Your task to perform on an android device: Show the shopping cart on ebay. Search for panasonic triple a on ebay, select the first entry, add it to the cart, then select checkout. Image 0: 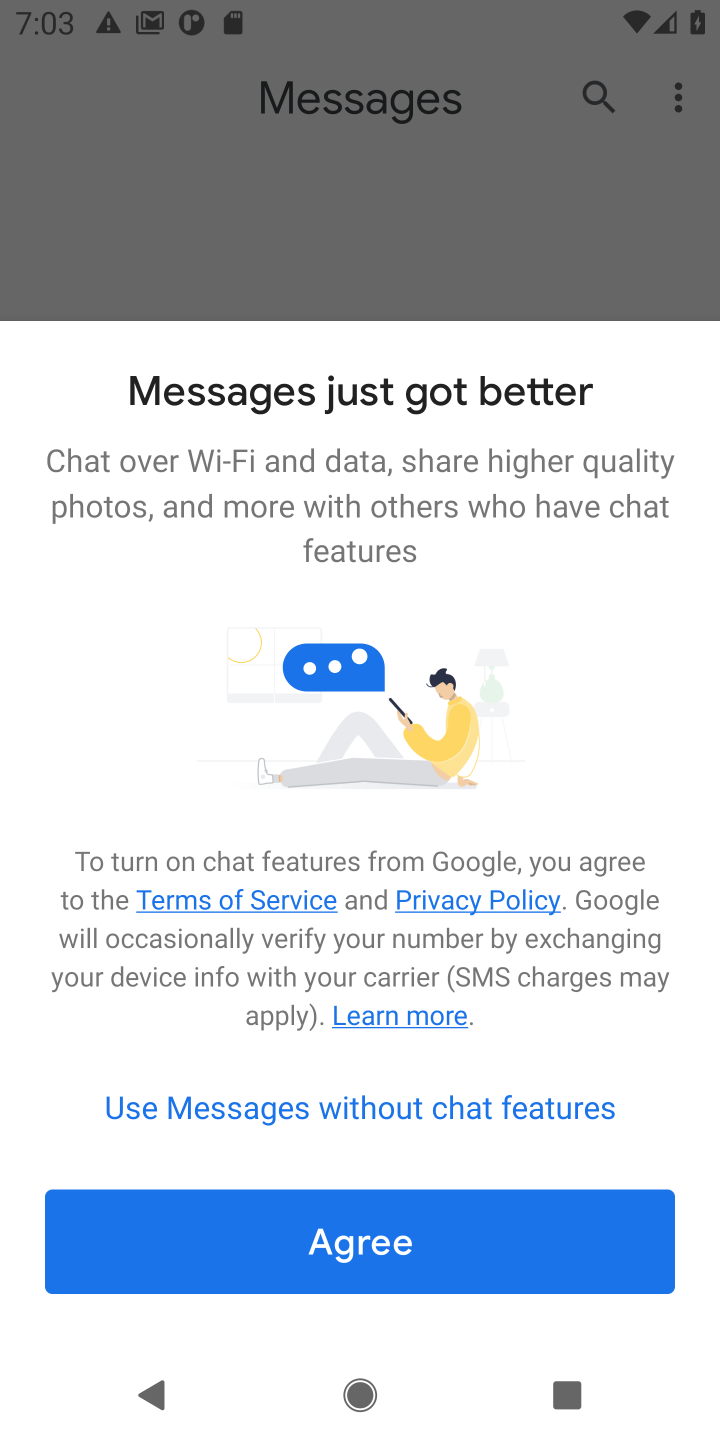
Step 0: press home button
Your task to perform on an android device: Show the shopping cart on ebay. Search for panasonic triple a on ebay, select the first entry, add it to the cart, then select checkout. Image 1: 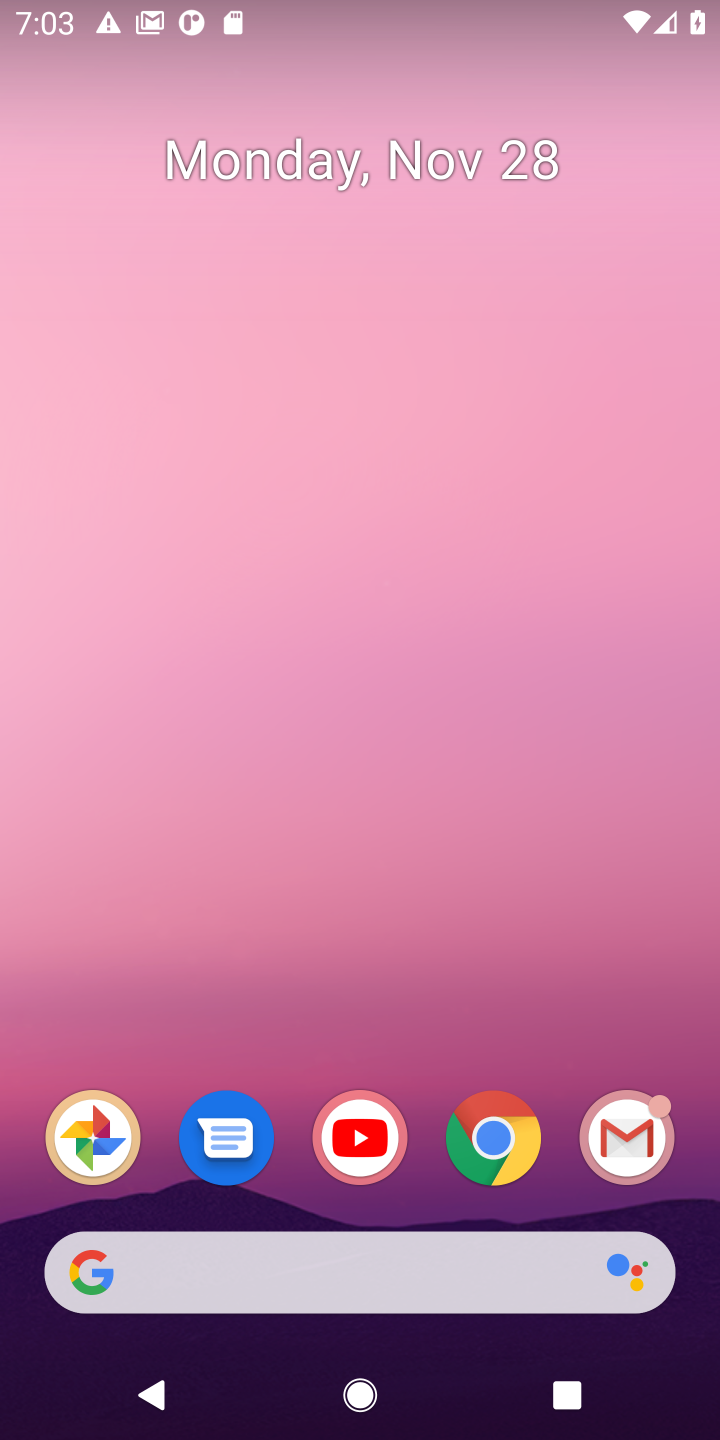
Step 1: click (503, 1154)
Your task to perform on an android device: Show the shopping cart on ebay. Search for panasonic triple a on ebay, select the first entry, add it to the cart, then select checkout. Image 2: 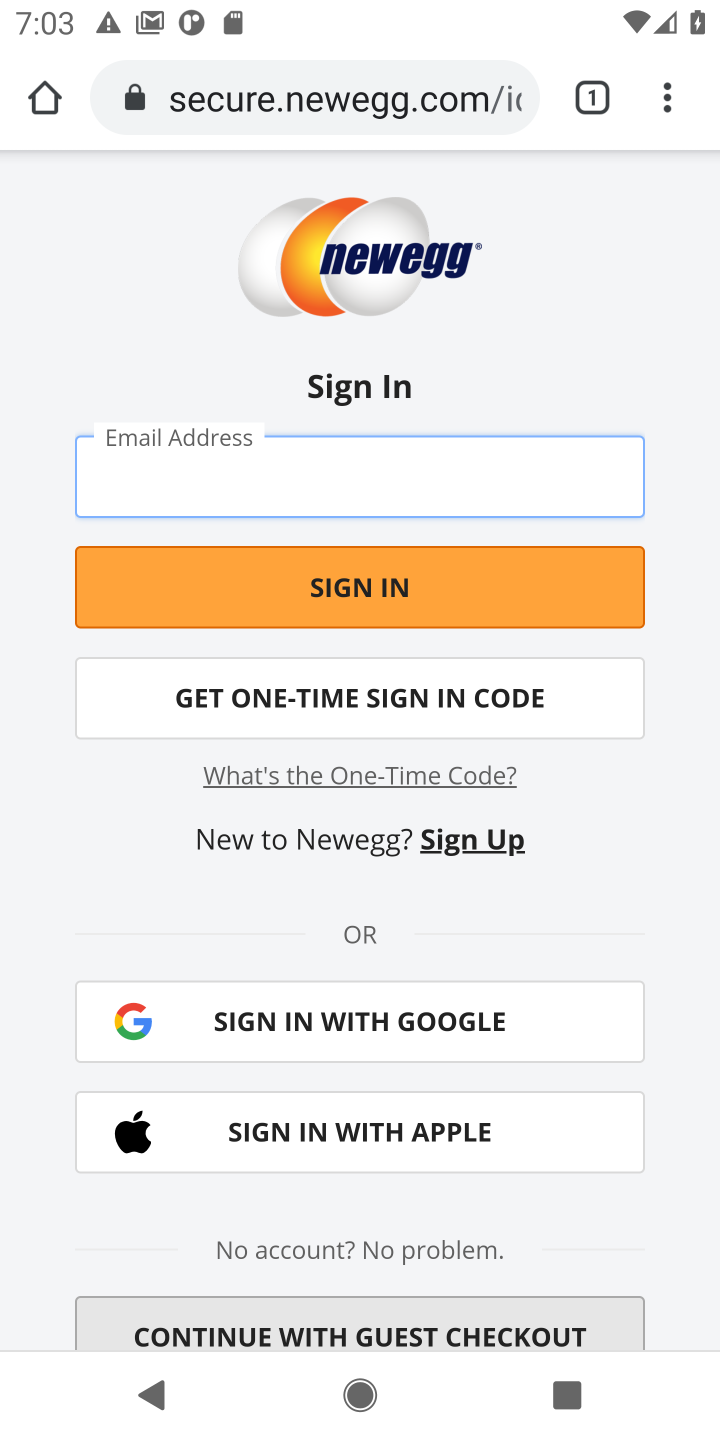
Step 2: click (305, 92)
Your task to perform on an android device: Show the shopping cart on ebay. Search for panasonic triple a on ebay, select the first entry, add it to the cart, then select checkout. Image 3: 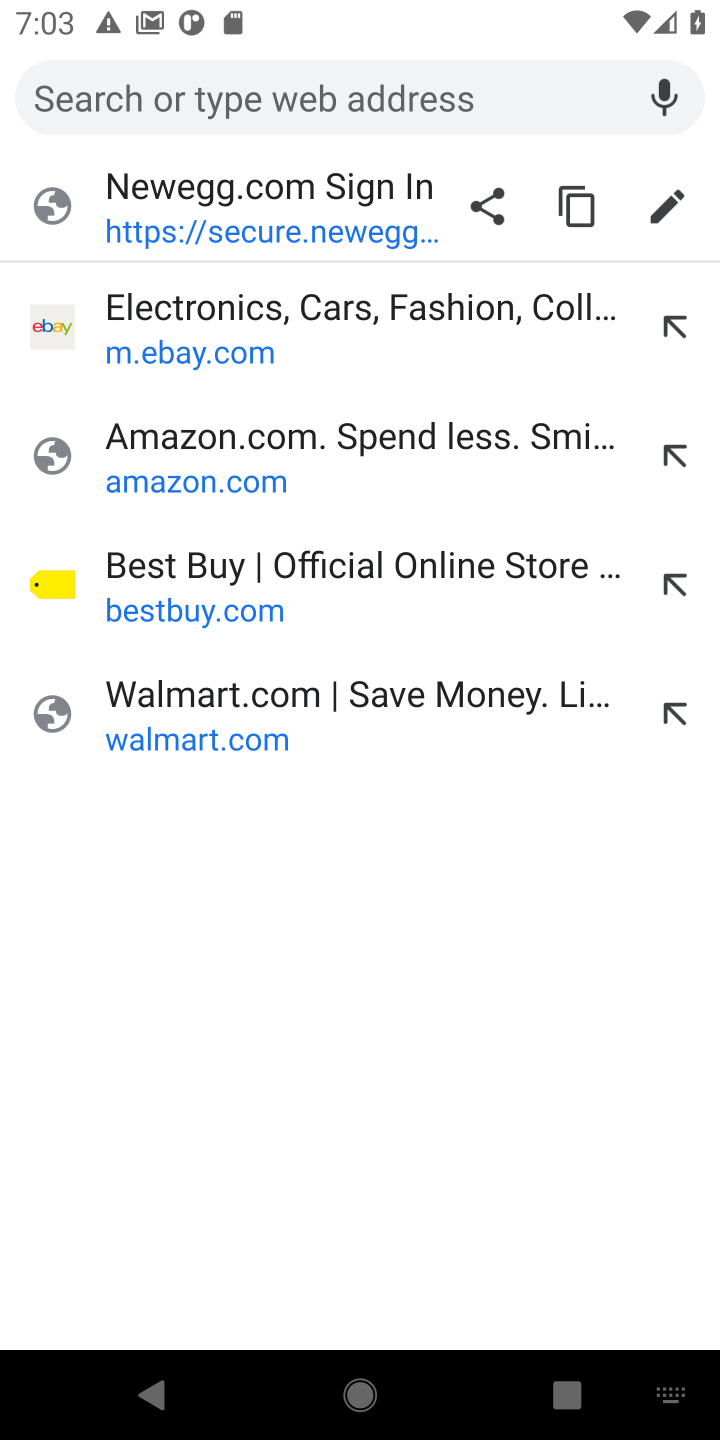
Step 3: click (171, 321)
Your task to perform on an android device: Show the shopping cart on ebay. Search for panasonic triple a on ebay, select the first entry, add it to the cart, then select checkout. Image 4: 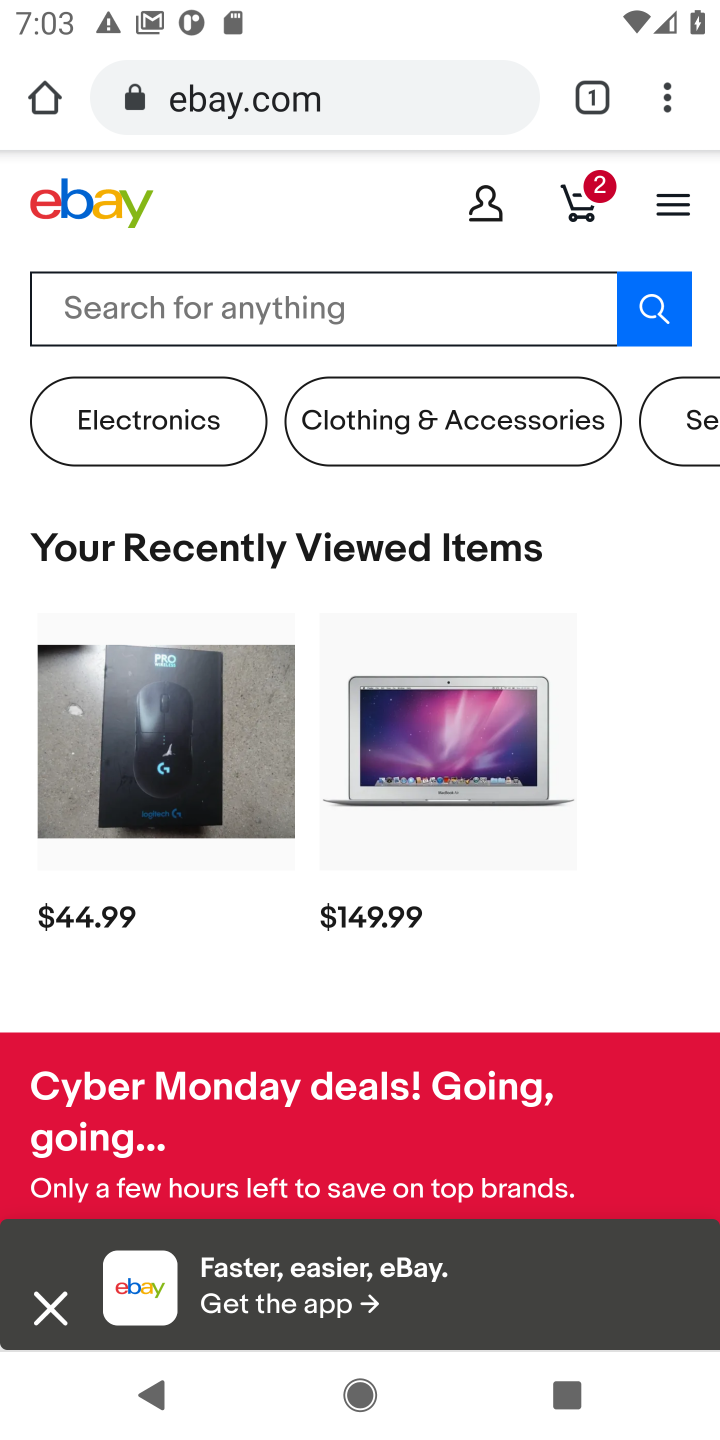
Step 4: click (581, 208)
Your task to perform on an android device: Show the shopping cart on ebay. Search for panasonic triple a on ebay, select the first entry, add it to the cart, then select checkout. Image 5: 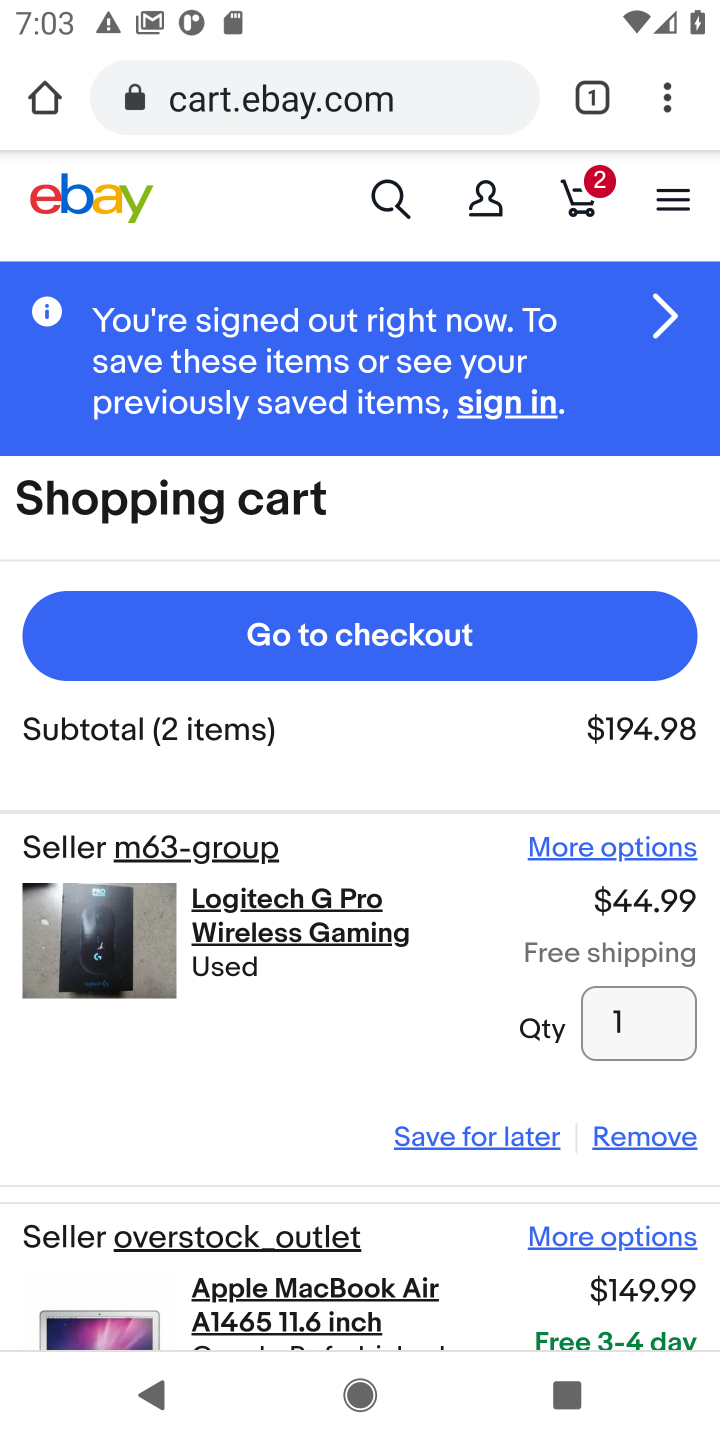
Step 5: click (386, 206)
Your task to perform on an android device: Show the shopping cart on ebay. Search for panasonic triple a on ebay, select the first entry, add it to the cart, then select checkout. Image 6: 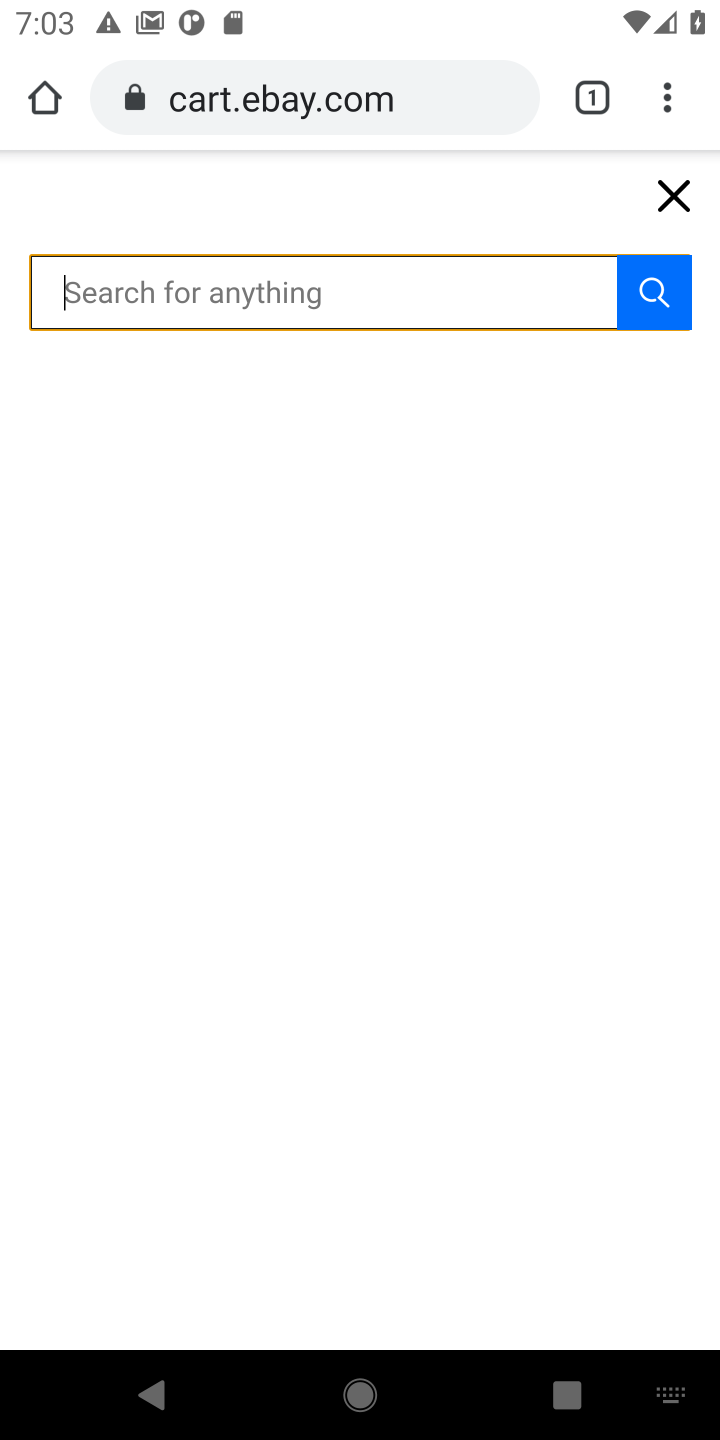
Step 6: type "panasonic triple a"
Your task to perform on an android device: Show the shopping cart on ebay. Search for panasonic triple a on ebay, select the first entry, add it to the cart, then select checkout. Image 7: 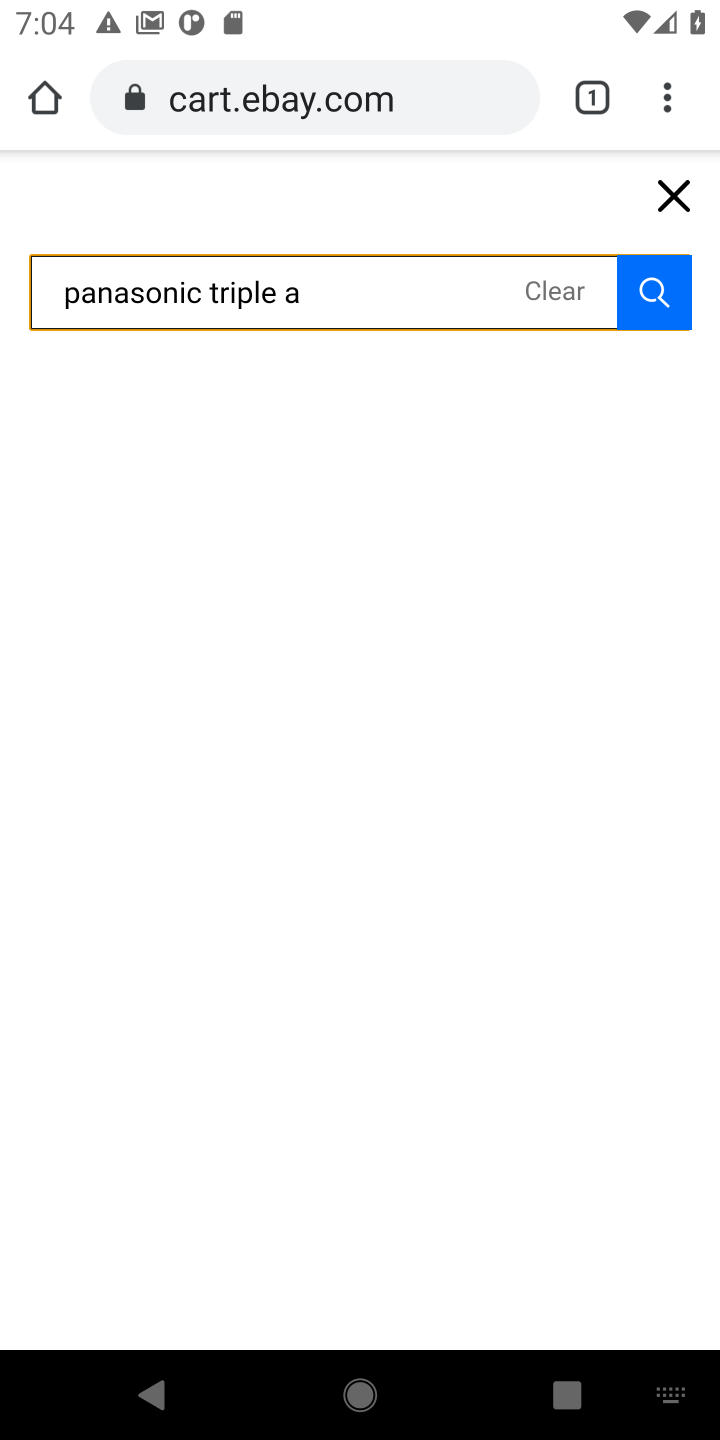
Step 7: click (659, 303)
Your task to perform on an android device: Show the shopping cart on ebay. Search for panasonic triple a on ebay, select the first entry, add it to the cart, then select checkout. Image 8: 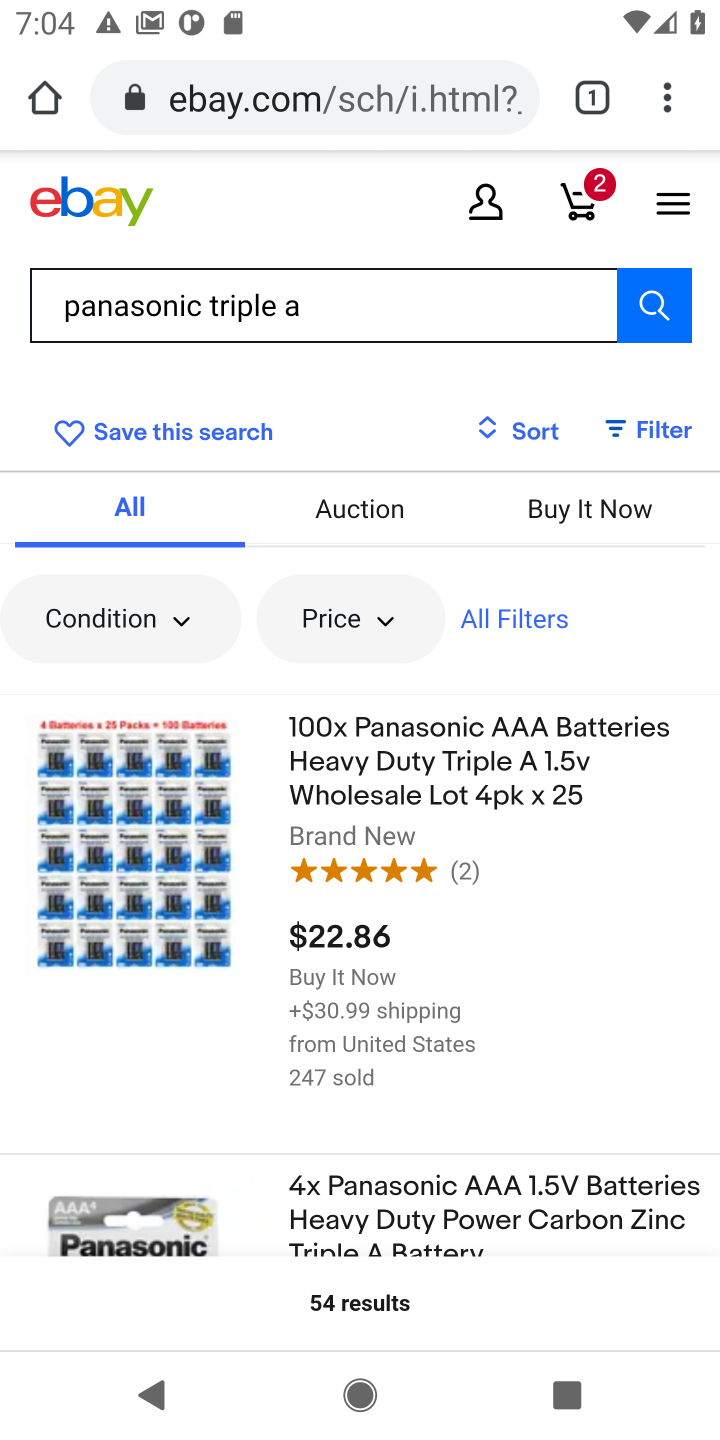
Step 8: click (333, 789)
Your task to perform on an android device: Show the shopping cart on ebay. Search for panasonic triple a on ebay, select the first entry, add it to the cart, then select checkout. Image 9: 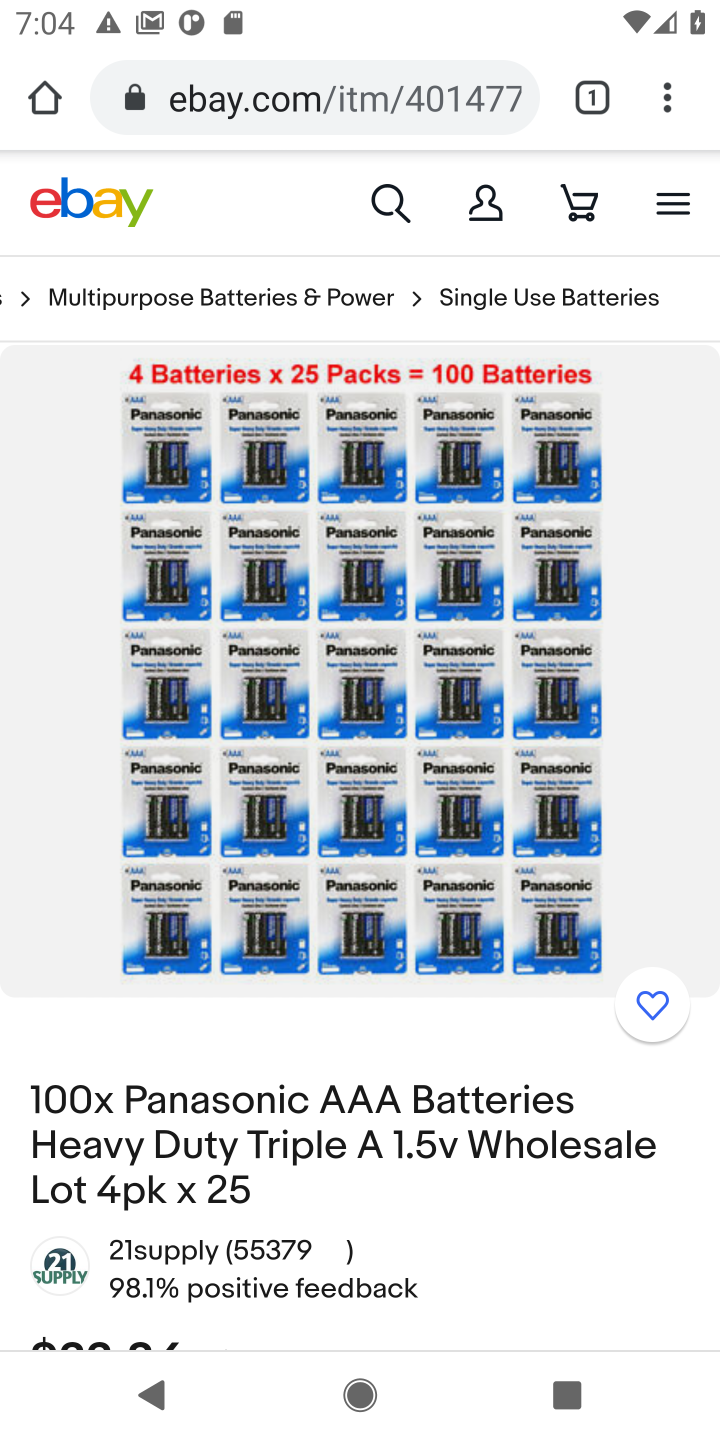
Step 9: drag from (542, 1117) to (513, 624)
Your task to perform on an android device: Show the shopping cart on ebay. Search for panasonic triple a on ebay, select the first entry, add it to the cart, then select checkout. Image 10: 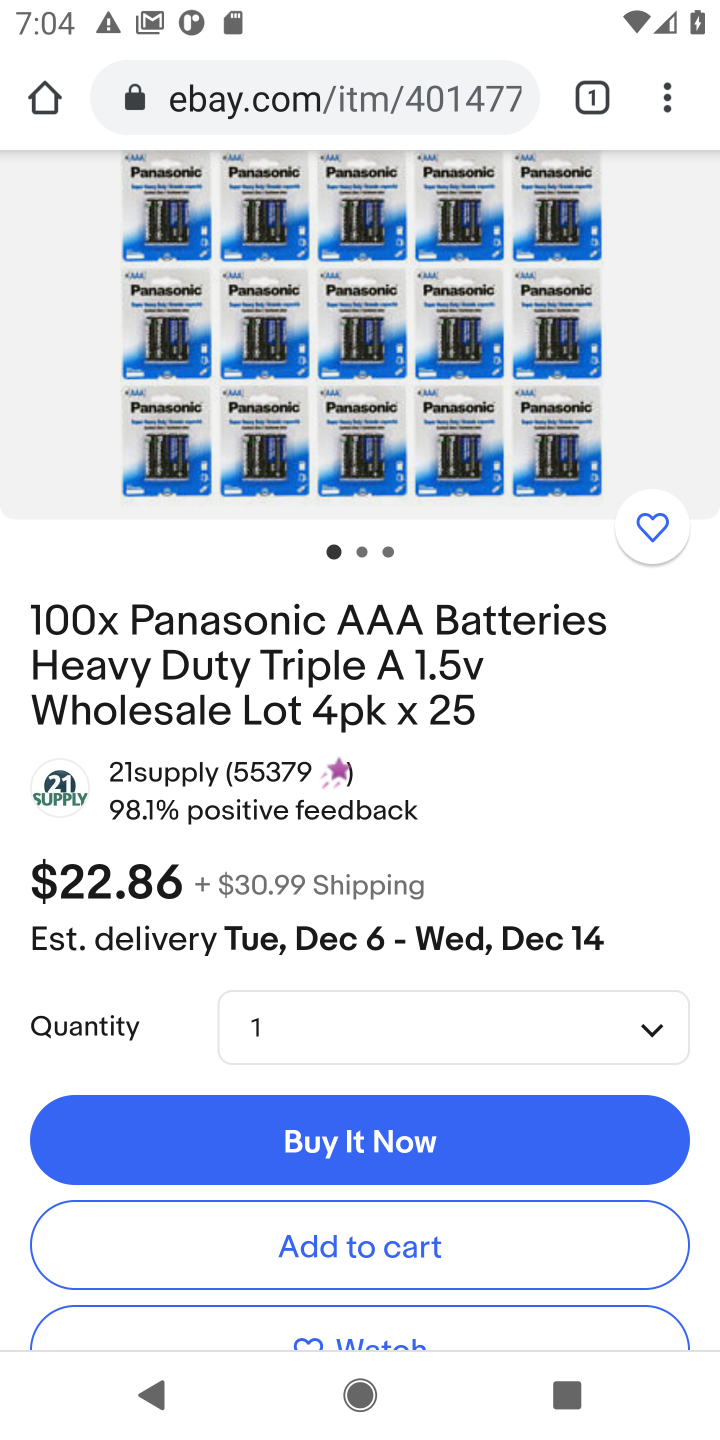
Step 10: click (369, 1231)
Your task to perform on an android device: Show the shopping cart on ebay. Search for panasonic triple a on ebay, select the first entry, add it to the cart, then select checkout. Image 11: 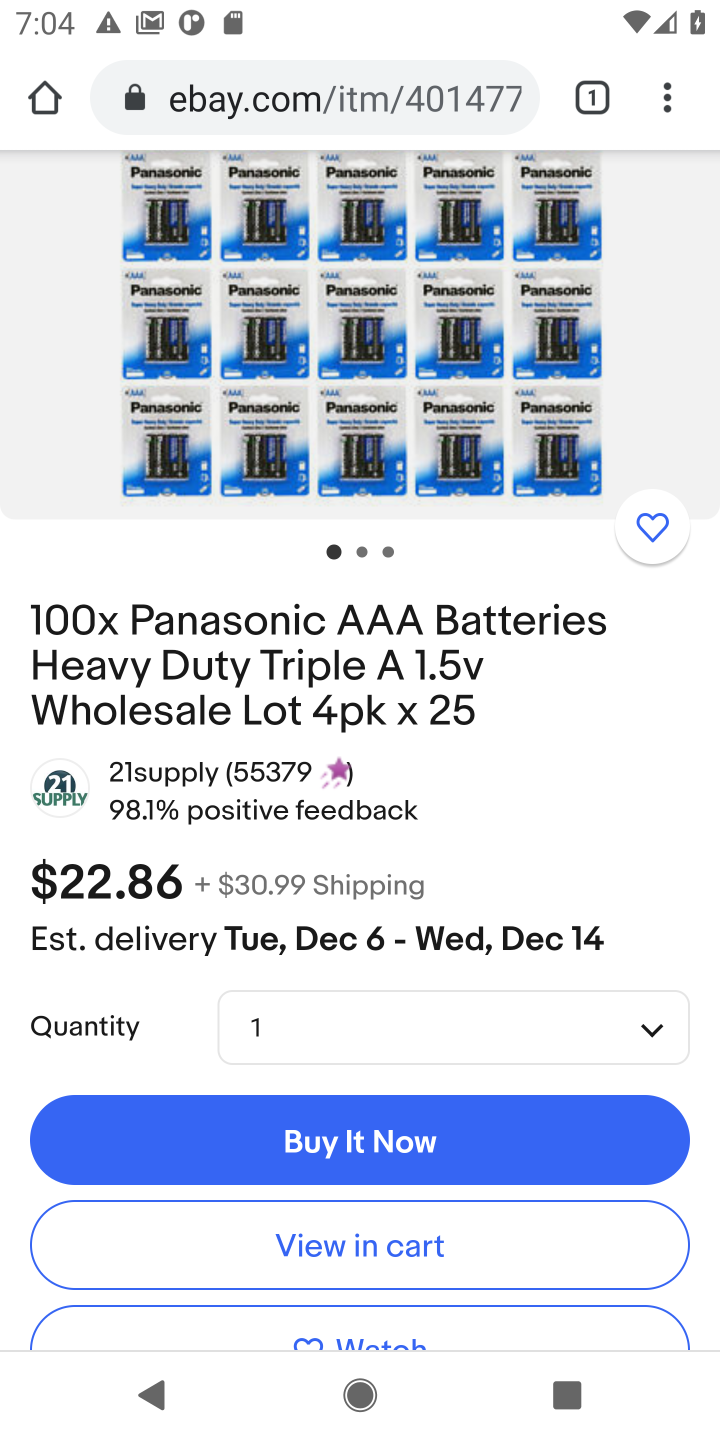
Step 11: click (369, 1243)
Your task to perform on an android device: Show the shopping cart on ebay. Search for panasonic triple a on ebay, select the first entry, add it to the cart, then select checkout. Image 12: 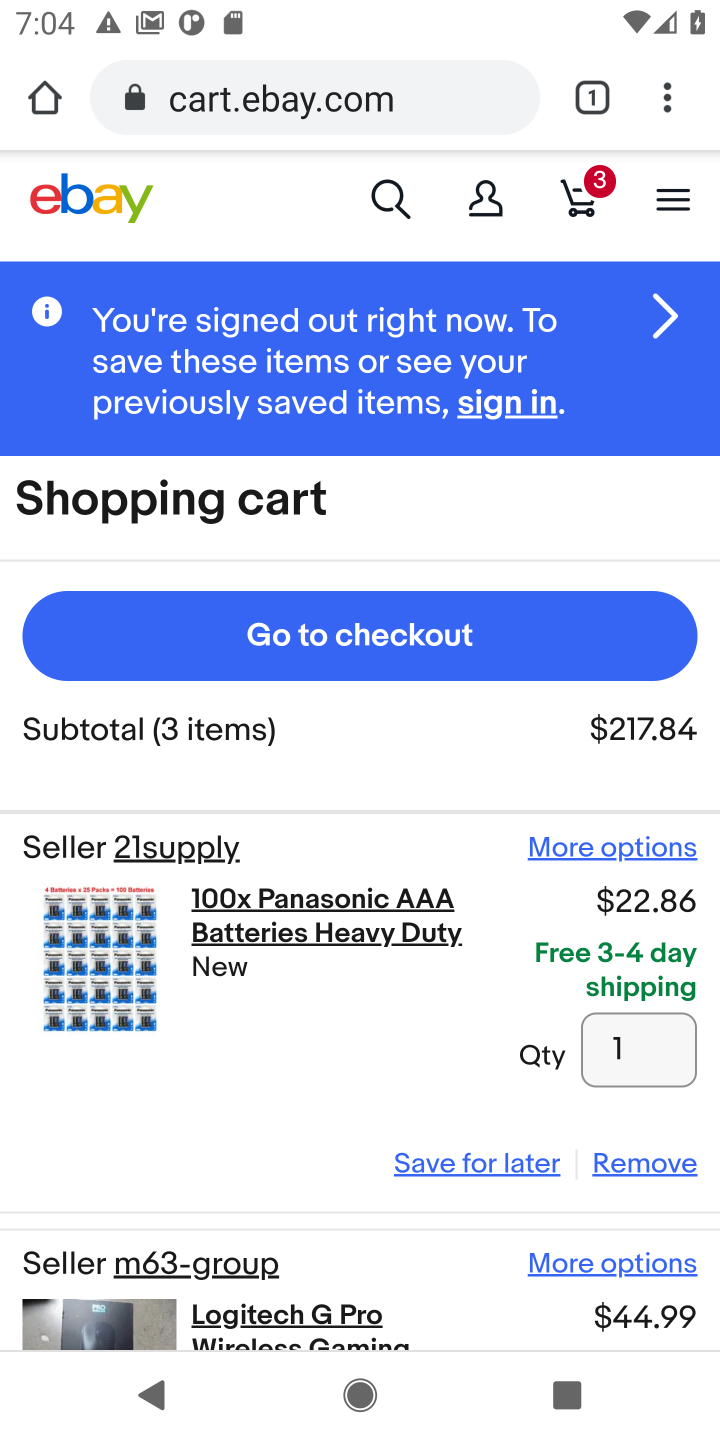
Step 12: click (339, 633)
Your task to perform on an android device: Show the shopping cart on ebay. Search for panasonic triple a on ebay, select the first entry, add it to the cart, then select checkout. Image 13: 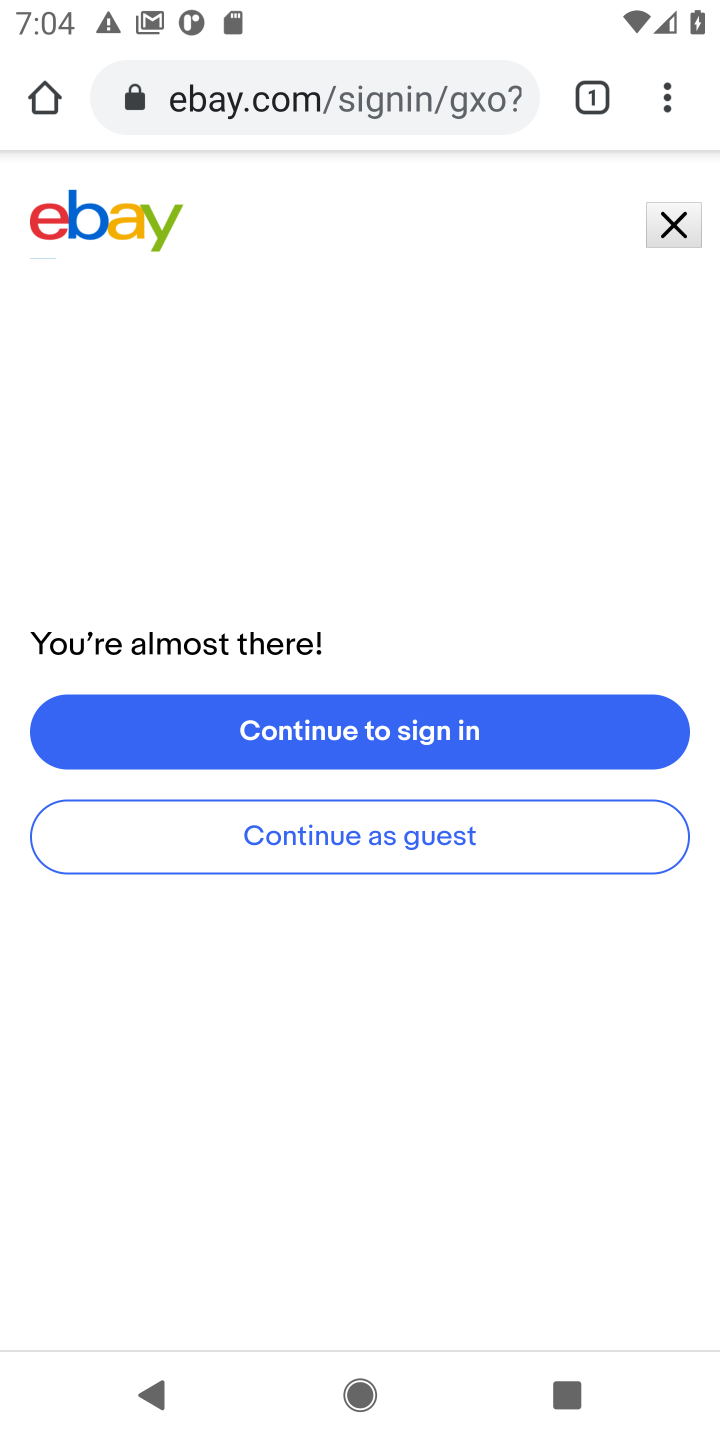
Step 13: task complete